Your task to perform on an android device: add a contact Image 0: 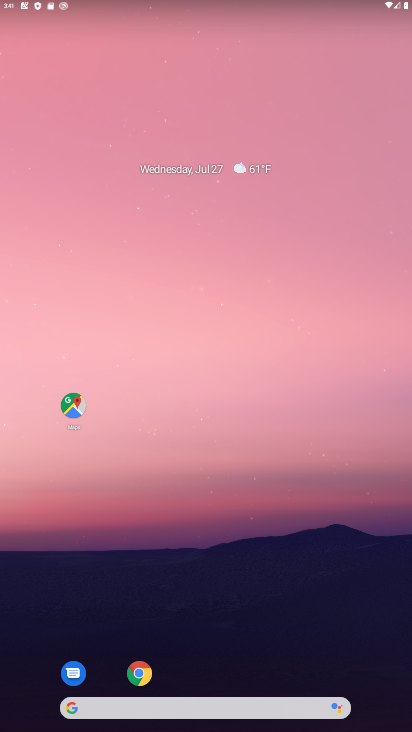
Step 0: drag from (318, 647) to (189, 103)
Your task to perform on an android device: add a contact Image 1: 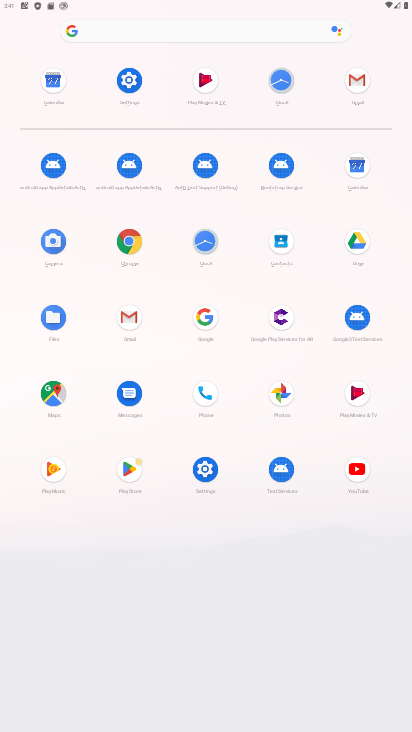
Step 1: click (283, 233)
Your task to perform on an android device: add a contact Image 2: 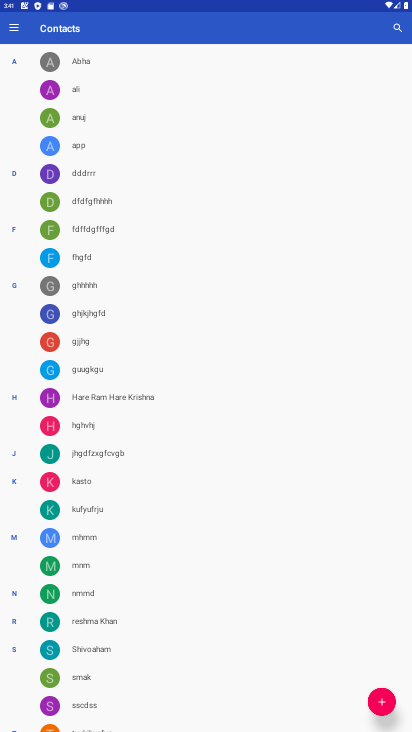
Step 2: click (377, 702)
Your task to perform on an android device: add a contact Image 3: 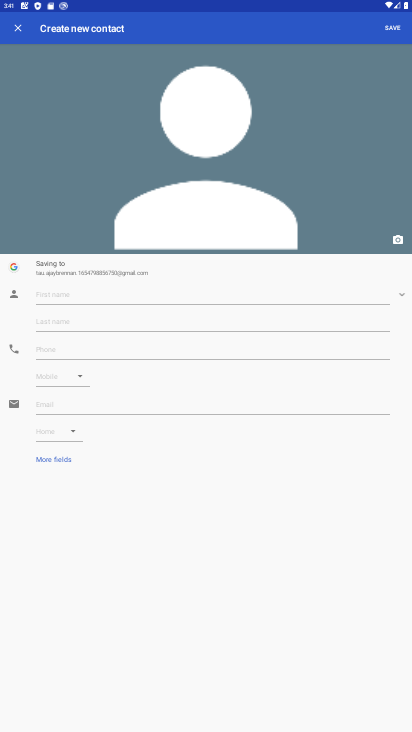
Step 3: click (314, 291)
Your task to perform on an android device: add a contact Image 4: 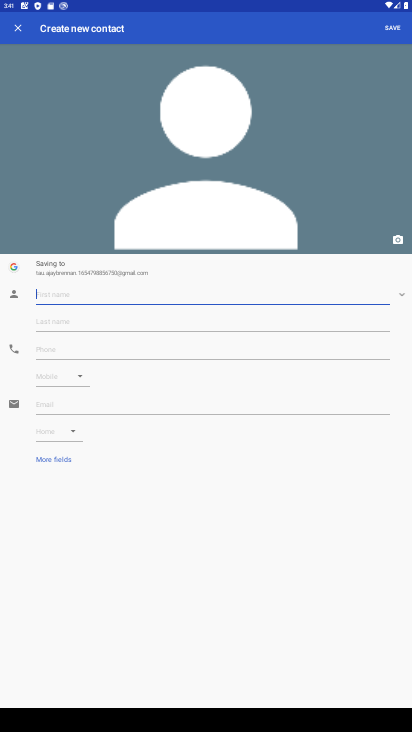
Step 4: type "lkkl"
Your task to perform on an android device: add a contact Image 5: 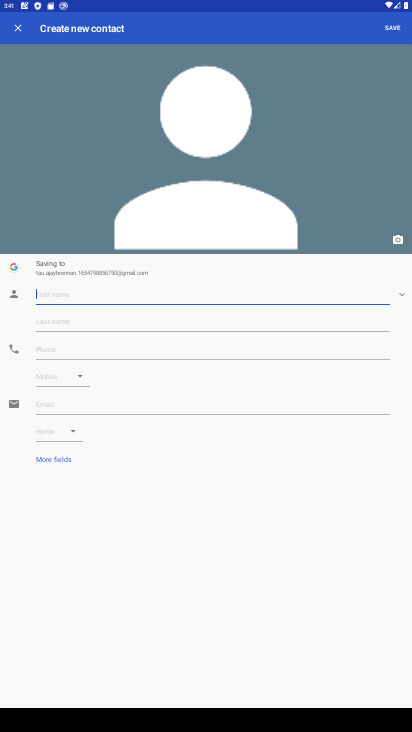
Step 5: click (57, 345)
Your task to perform on an android device: add a contact Image 6: 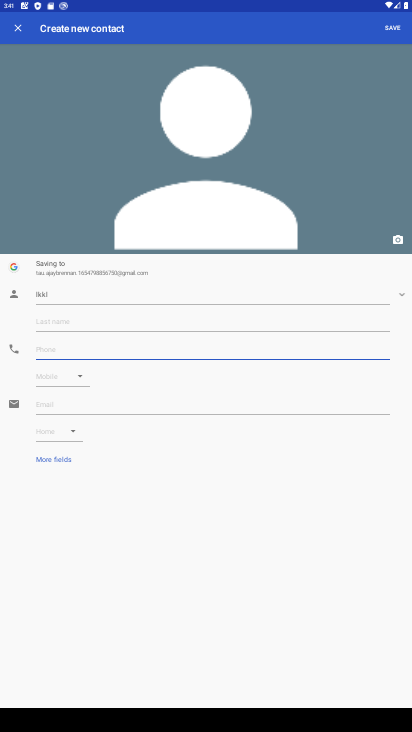
Step 6: type "8886660000"
Your task to perform on an android device: add a contact Image 7: 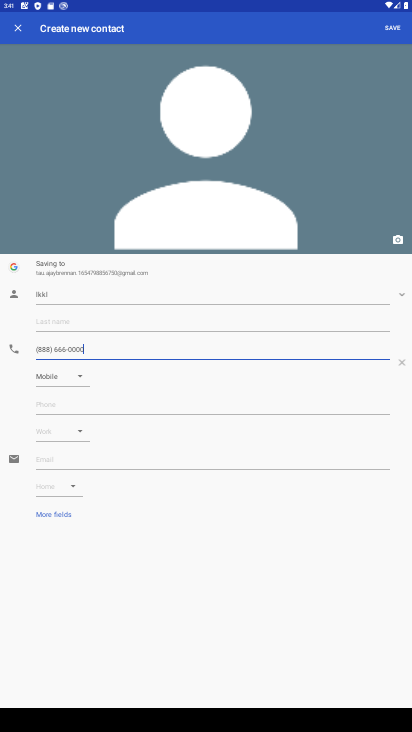
Step 7: click (395, 35)
Your task to perform on an android device: add a contact Image 8: 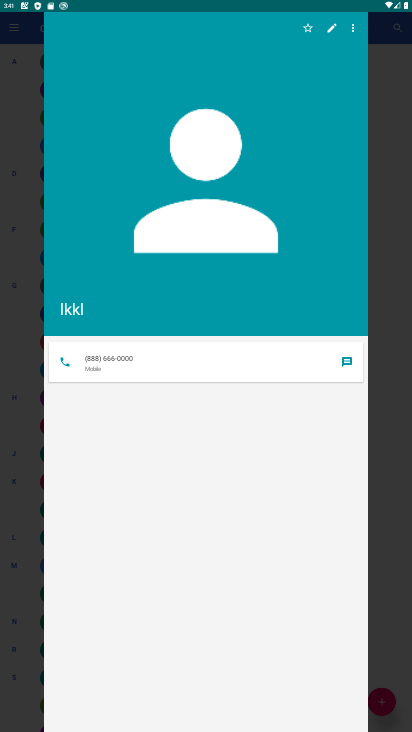
Step 8: task complete